Your task to perform on an android device: install app "YouTube Kids" Image 0: 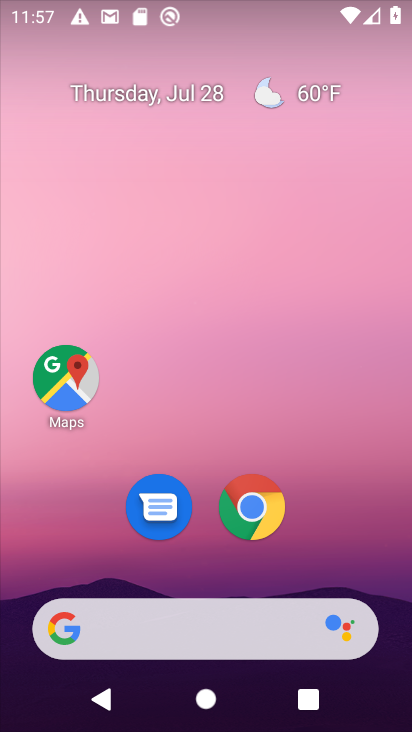
Step 0: drag from (198, 563) to (215, 37)
Your task to perform on an android device: install app "YouTube Kids" Image 1: 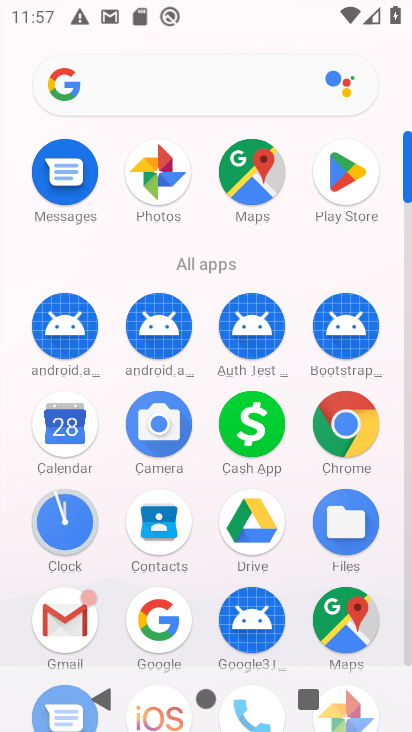
Step 1: click (329, 192)
Your task to perform on an android device: install app "YouTube Kids" Image 2: 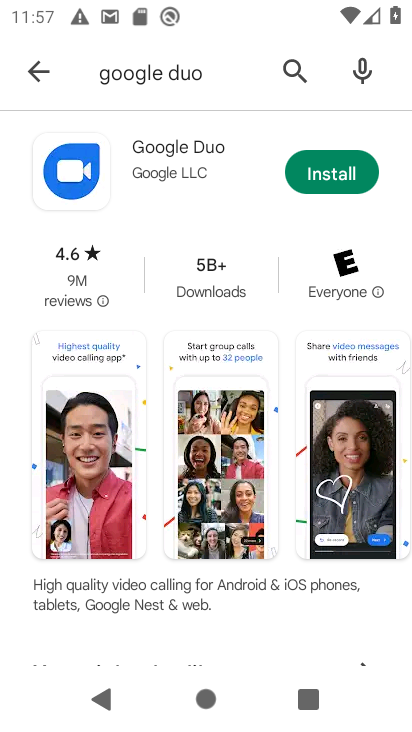
Step 2: click (201, 79)
Your task to perform on an android device: install app "YouTube Kids" Image 3: 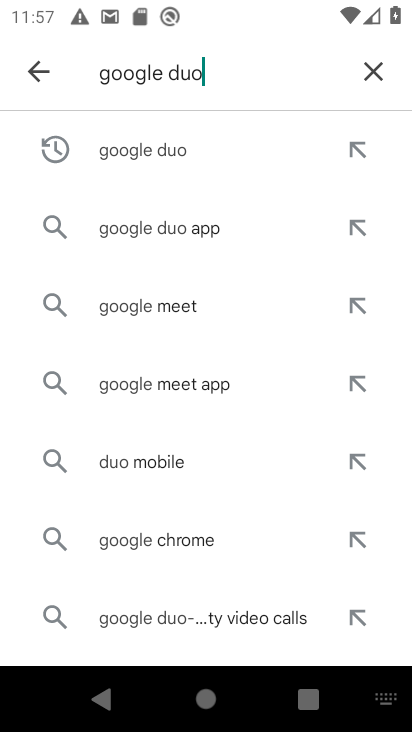
Step 3: click (367, 73)
Your task to perform on an android device: install app "YouTube Kids" Image 4: 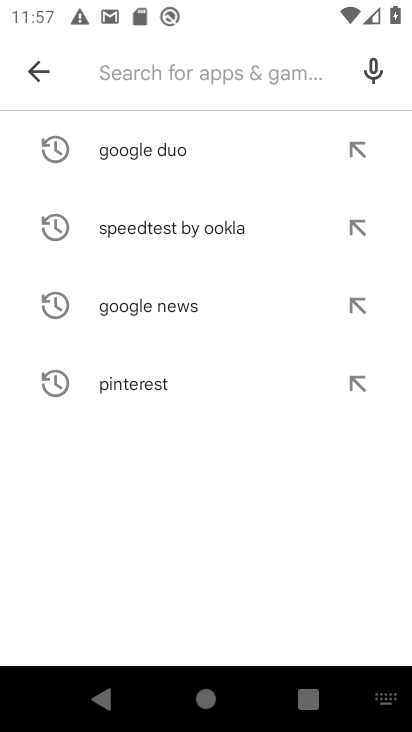
Step 4: type "youtube kids"
Your task to perform on an android device: install app "YouTube Kids" Image 5: 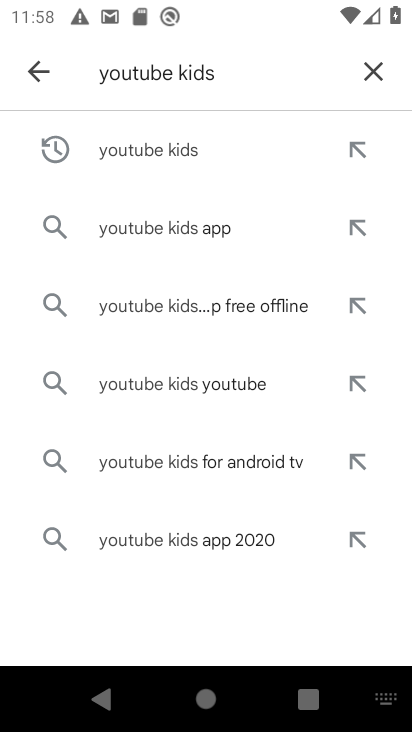
Step 5: click (189, 148)
Your task to perform on an android device: install app "YouTube Kids" Image 6: 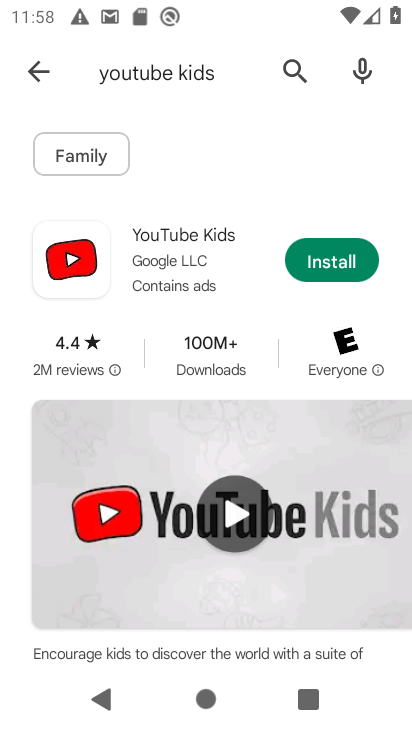
Step 6: click (352, 272)
Your task to perform on an android device: install app "YouTube Kids" Image 7: 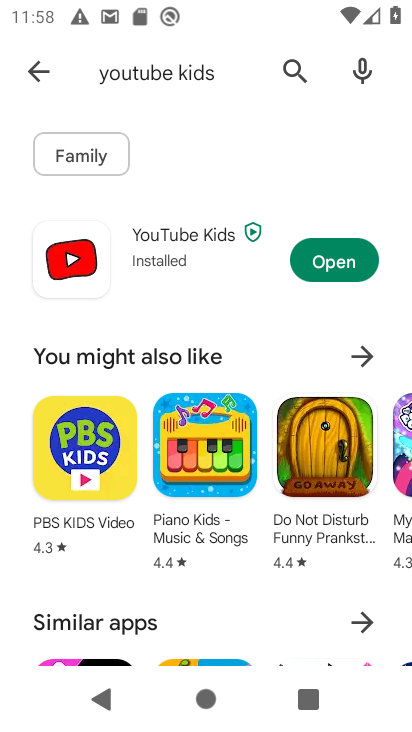
Step 7: task complete